Your task to perform on an android device: Do I have any events this weekend? Image 0: 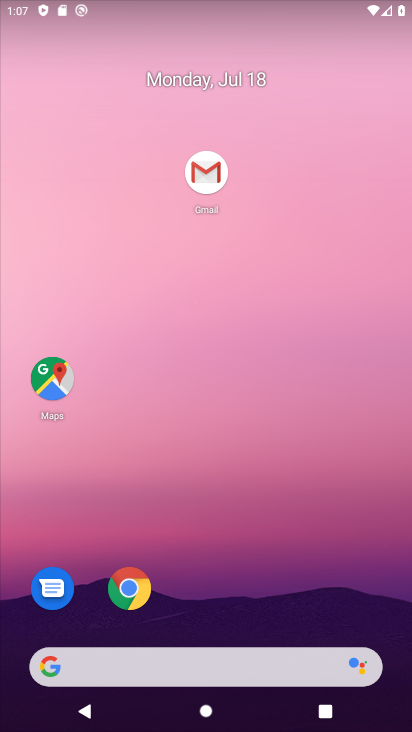
Step 0: drag from (245, 537) to (276, 179)
Your task to perform on an android device: Do I have any events this weekend? Image 1: 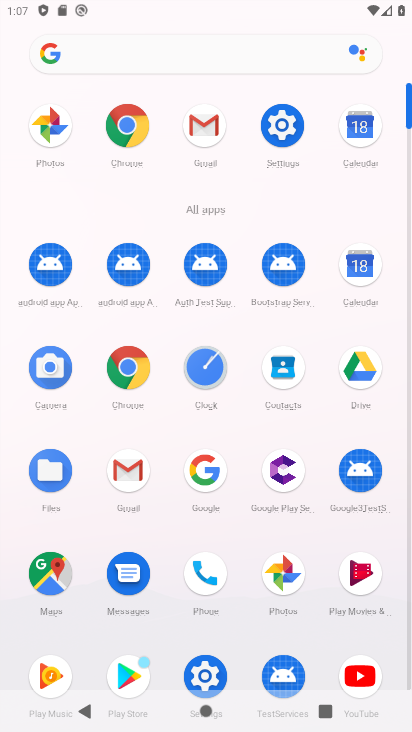
Step 1: click (365, 268)
Your task to perform on an android device: Do I have any events this weekend? Image 2: 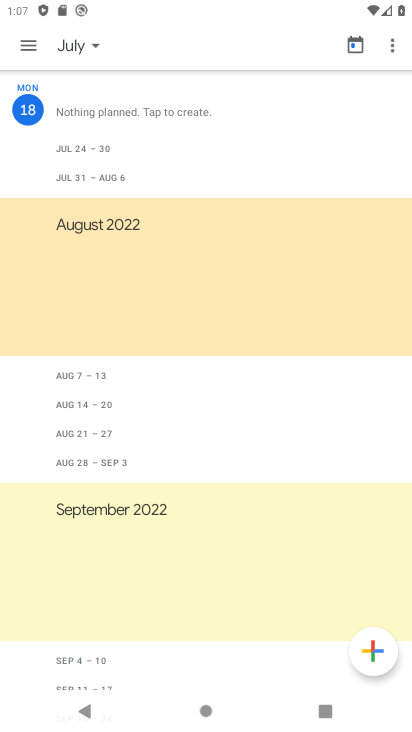
Step 2: task complete